Your task to perform on an android device: change the clock display to show seconds Image 0: 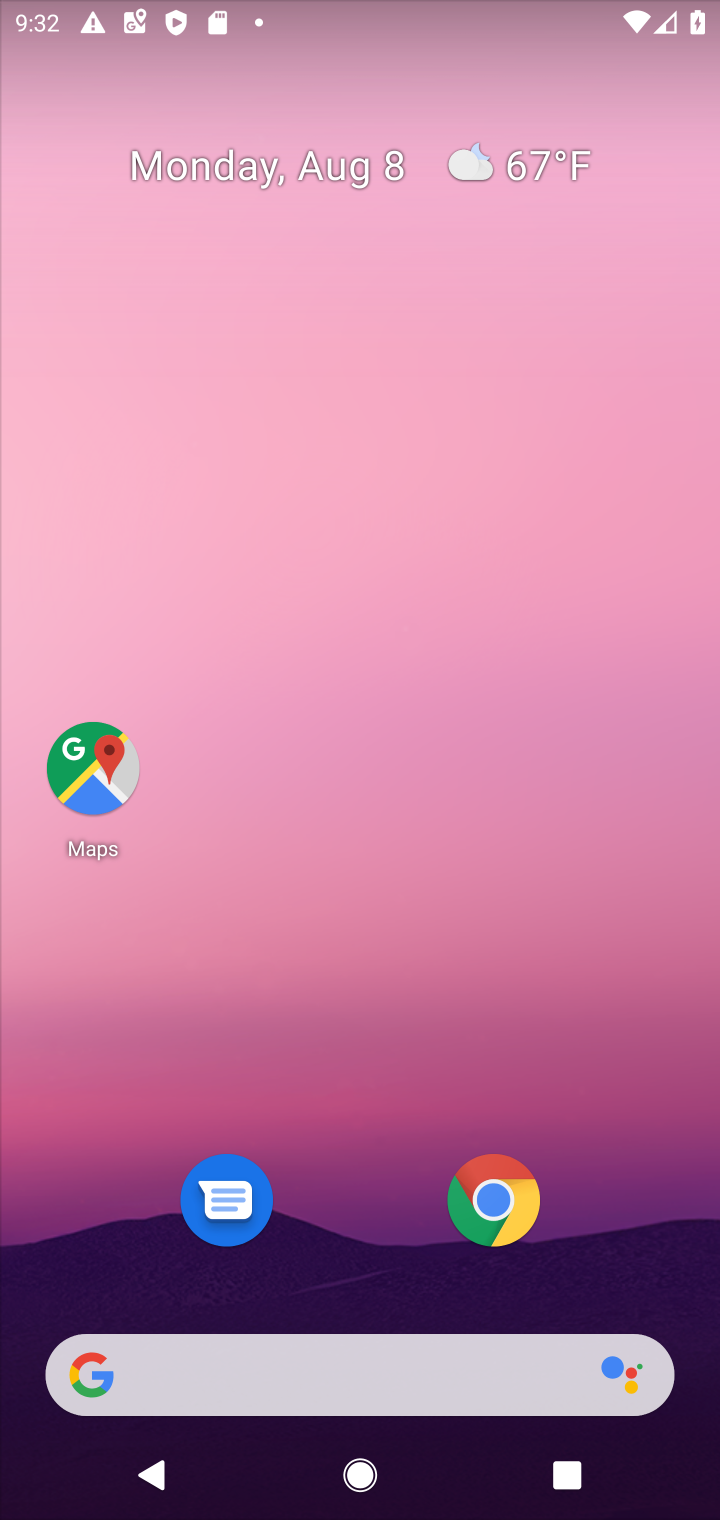
Step 0: press home button
Your task to perform on an android device: change the clock display to show seconds Image 1: 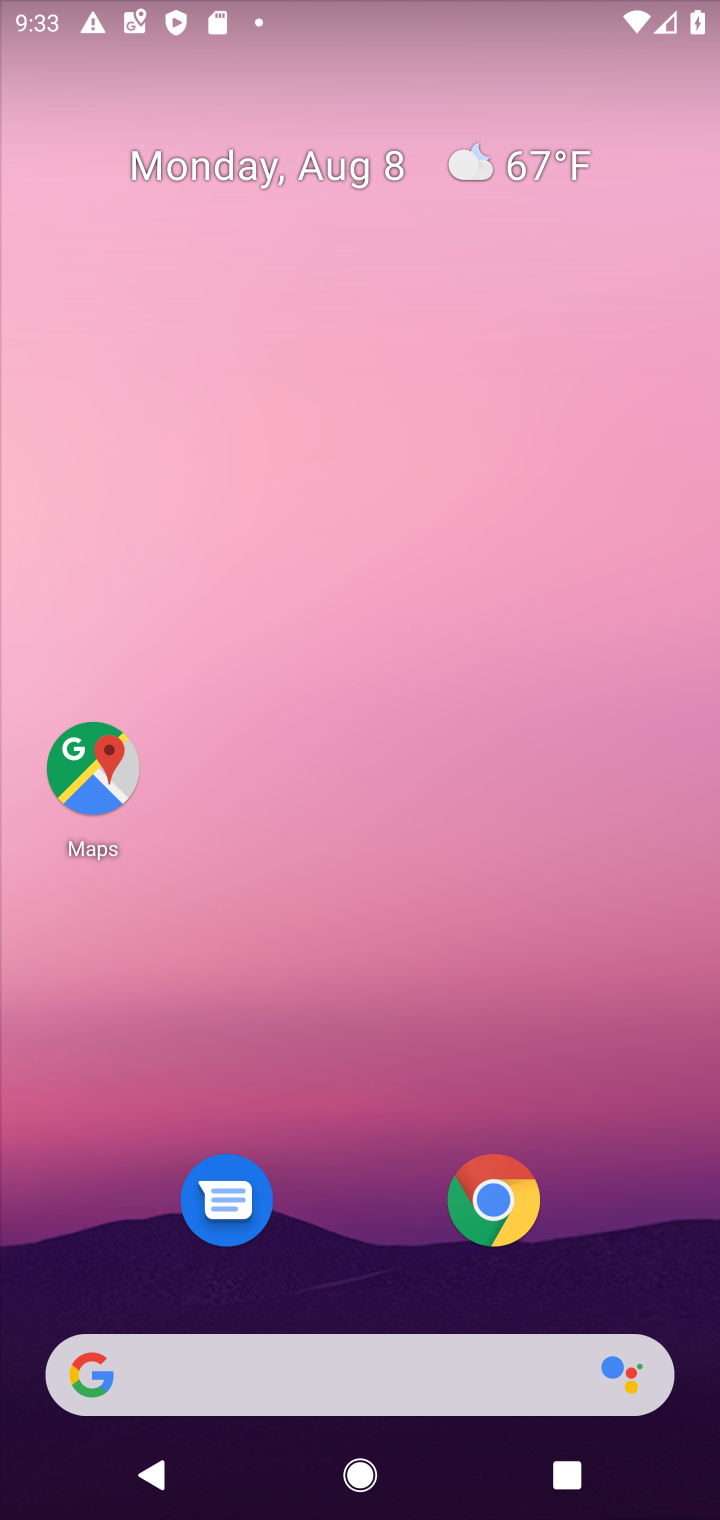
Step 1: drag from (260, 1379) to (430, 392)
Your task to perform on an android device: change the clock display to show seconds Image 2: 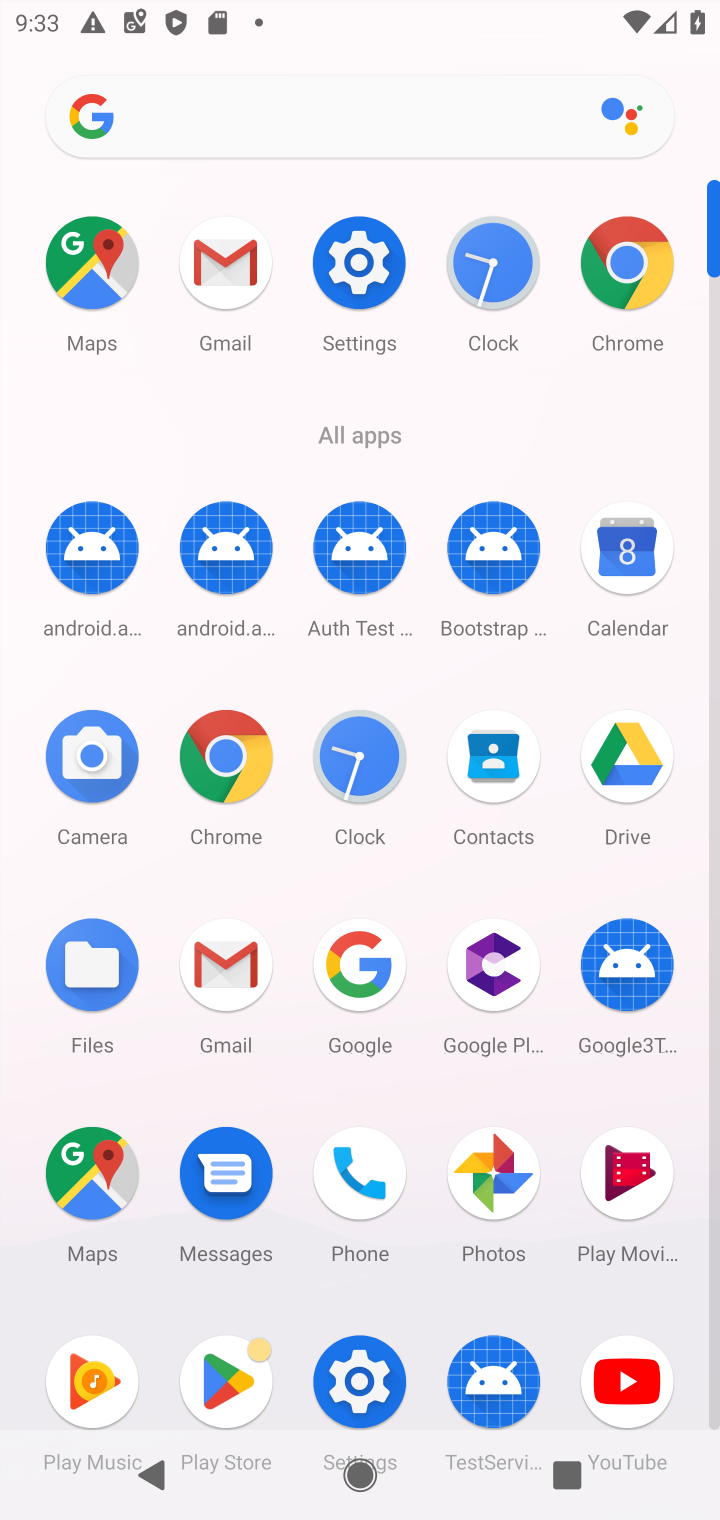
Step 2: click (357, 765)
Your task to perform on an android device: change the clock display to show seconds Image 3: 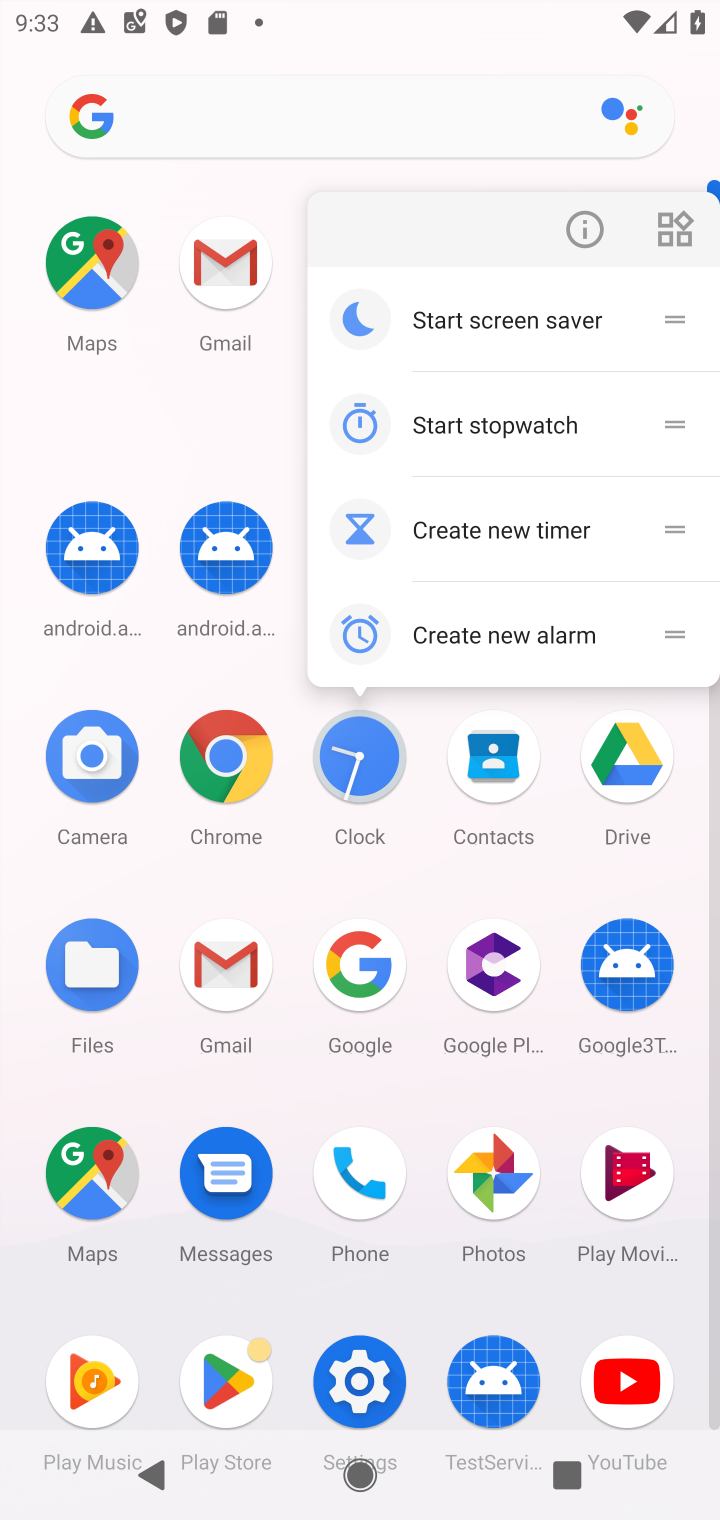
Step 3: click (355, 753)
Your task to perform on an android device: change the clock display to show seconds Image 4: 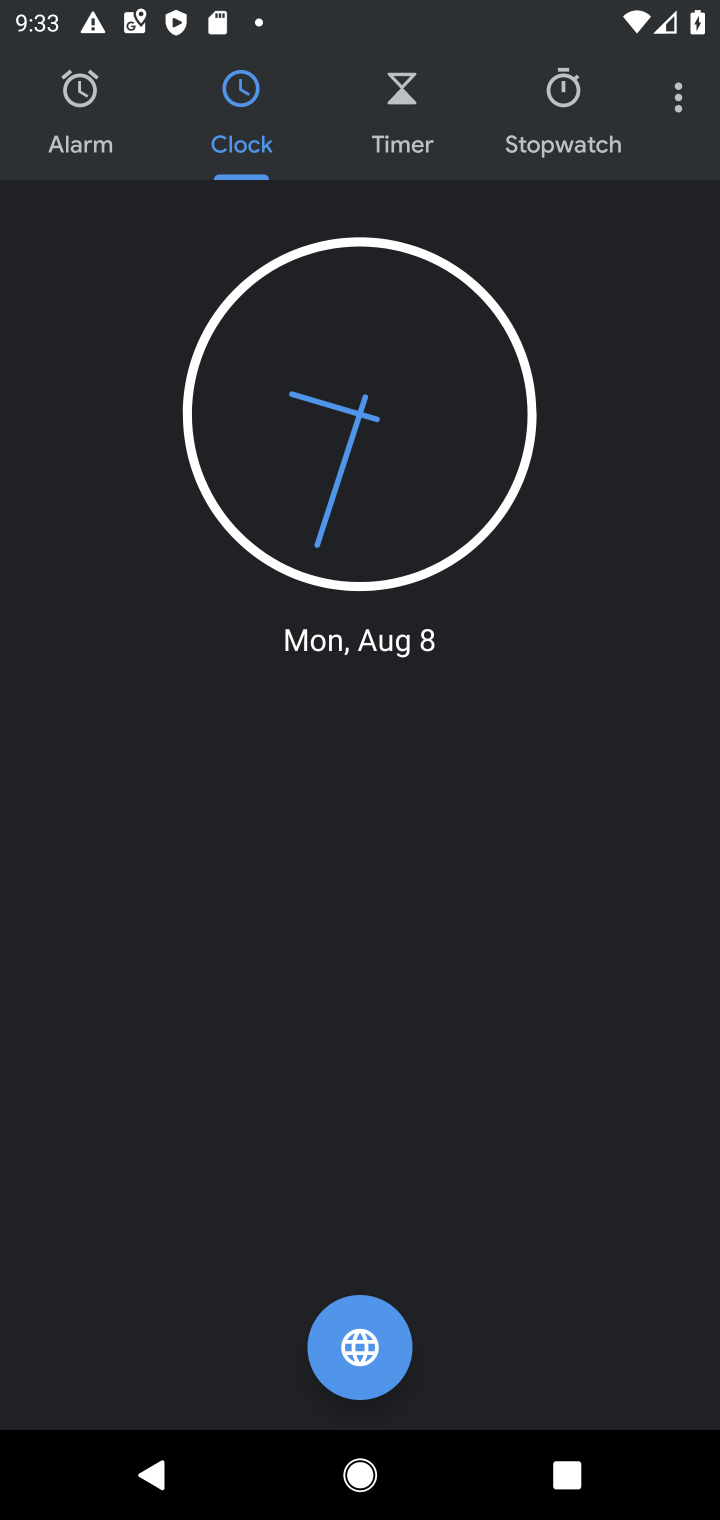
Step 4: click (670, 97)
Your task to perform on an android device: change the clock display to show seconds Image 5: 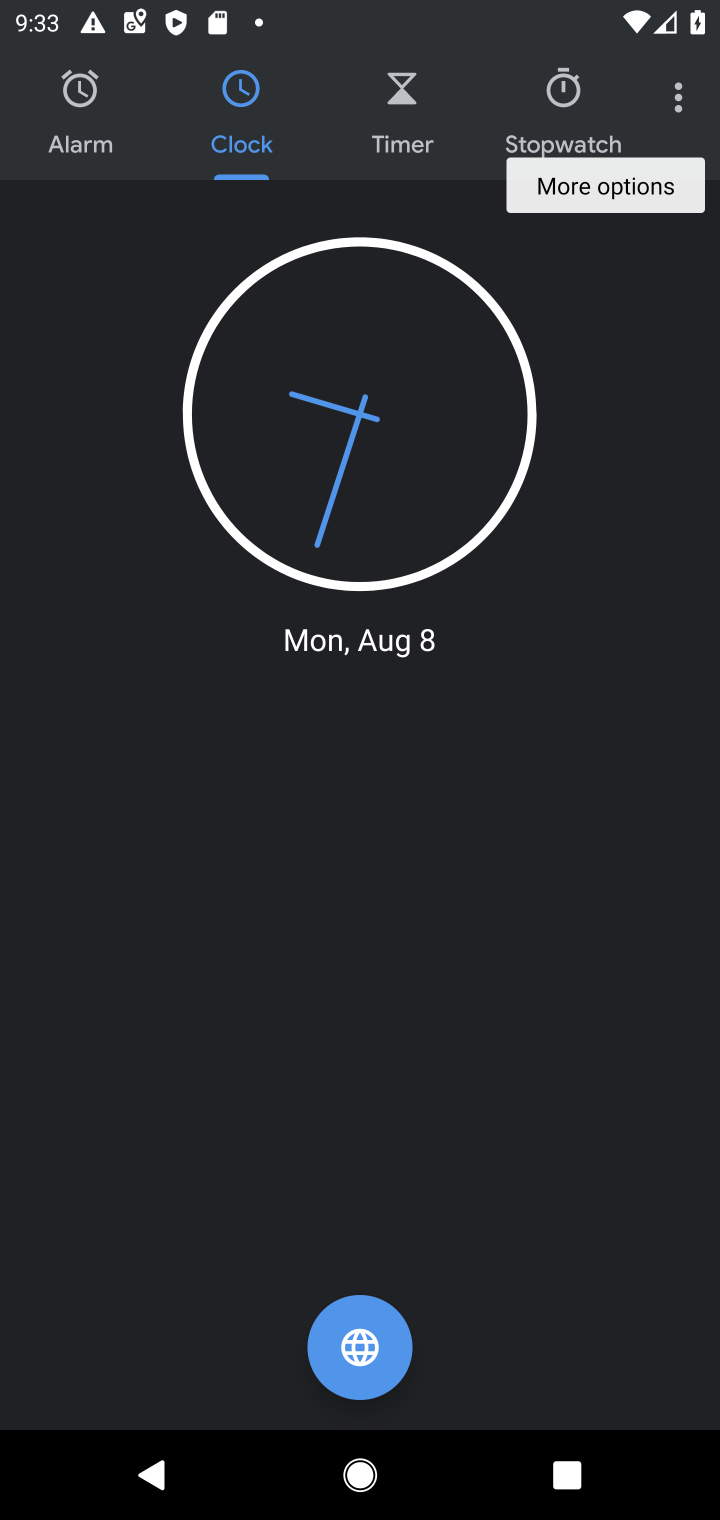
Step 5: click (676, 95)
Your task to perform on an android device: change the clock display to show seconds Image 6: 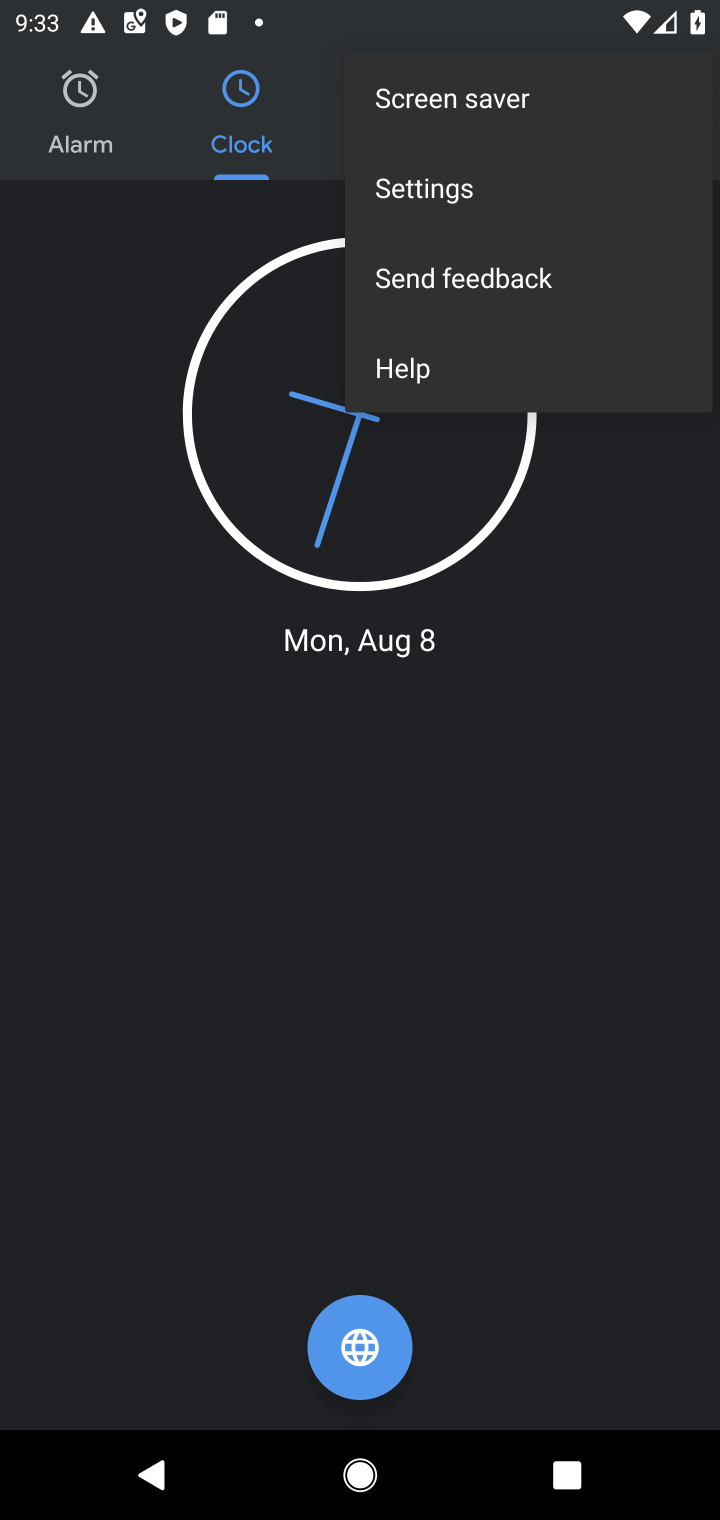
Step 6: click (440, 182)
Your task to perform on an android device: change the clock display to show seconds Image 7: 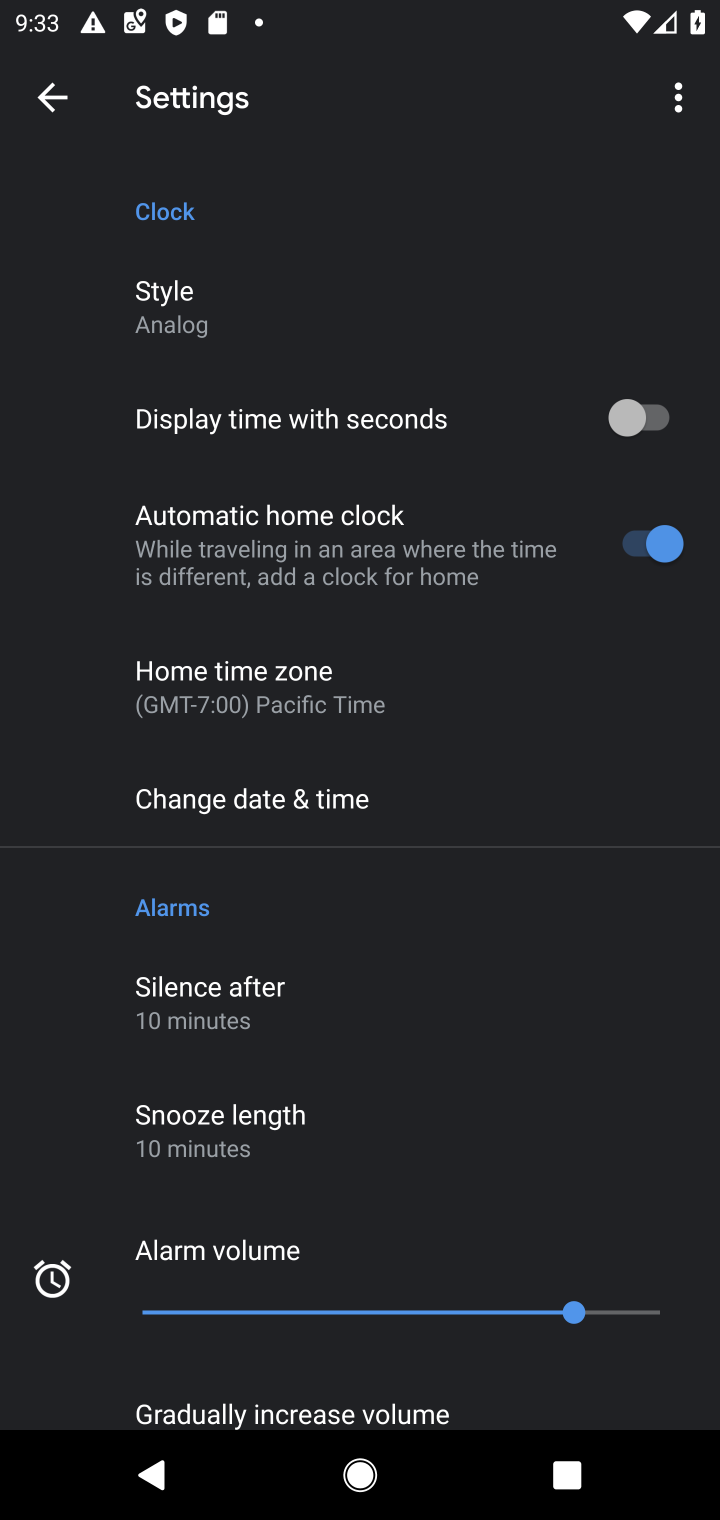
Step 7: click (655, 419)
Your task to perform on an android device: change the clock display to show seconds Image 8: 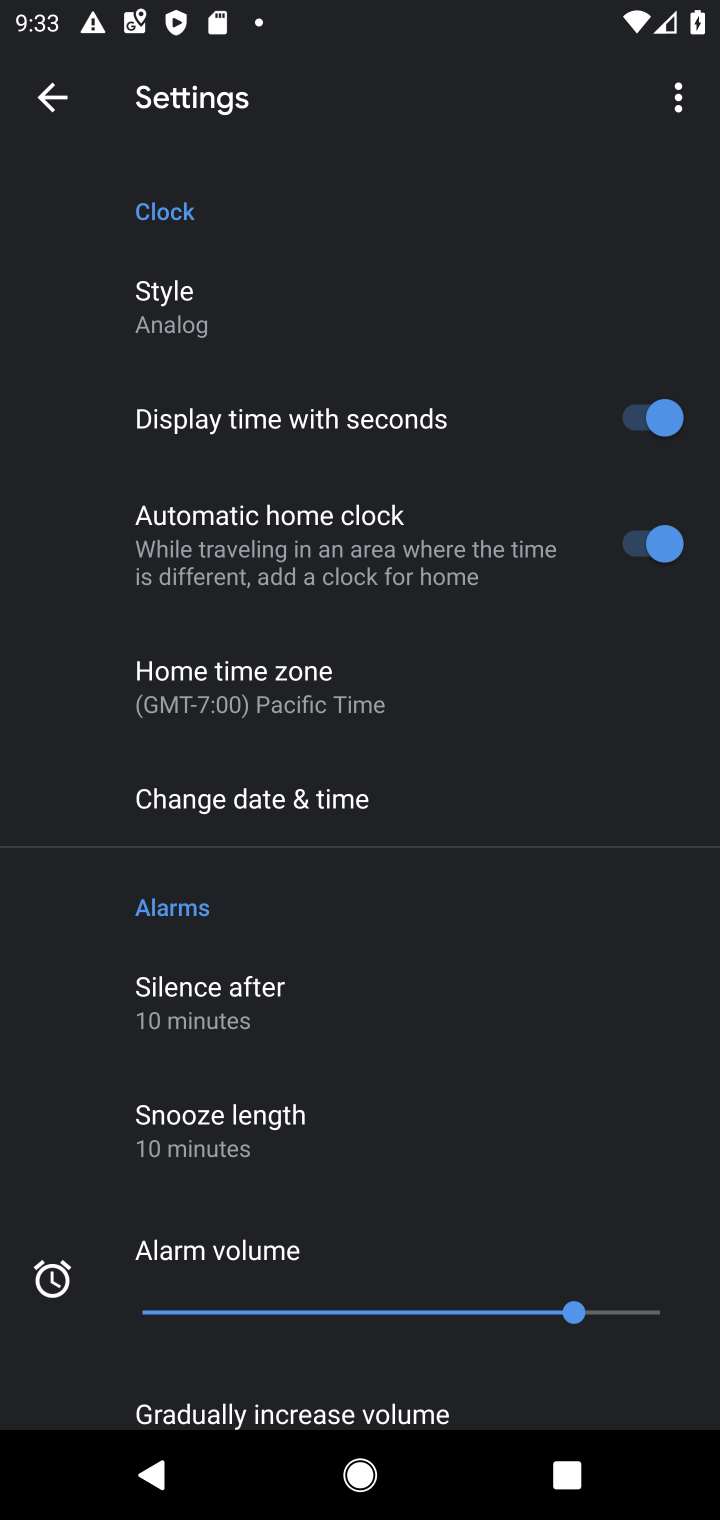
Step 8: task complete